Your task to perform on an android device: set an alarm Image 0: 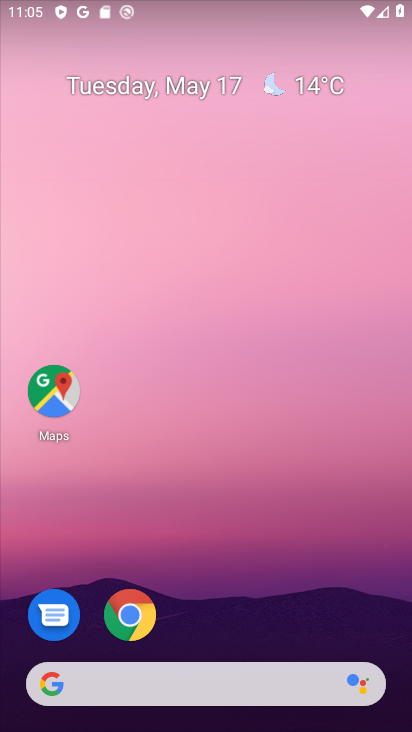
Step 0: drag from (283, 598) to (300, 158)
Your task to perform on an android device: set an alarm Image 1: 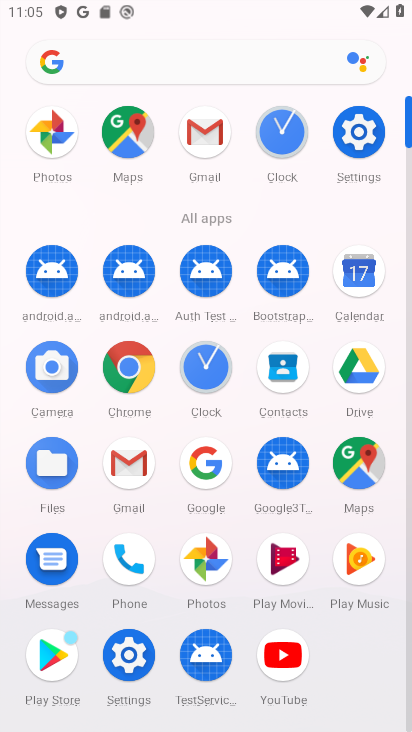
Step 1: click (207, 360)
Your task to perform on an android device: set an alarm Image 2: 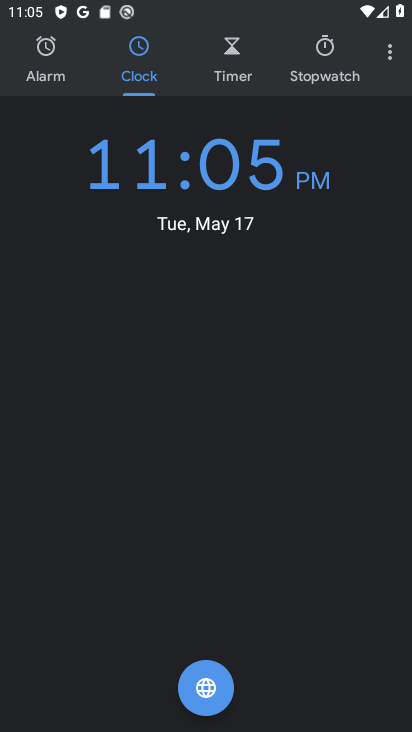
Step 2: click (71, 62)
Your task to perform on an android device: set an alarm Image 3: 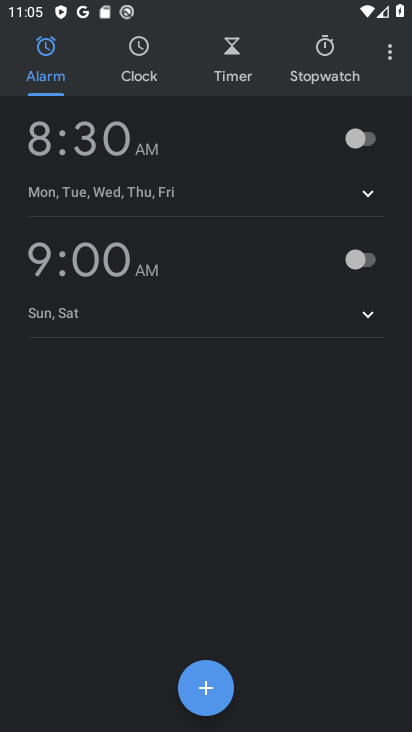
Step 3: click (225, 687)
Your task to perform on an android device: set an alarm Image 4: 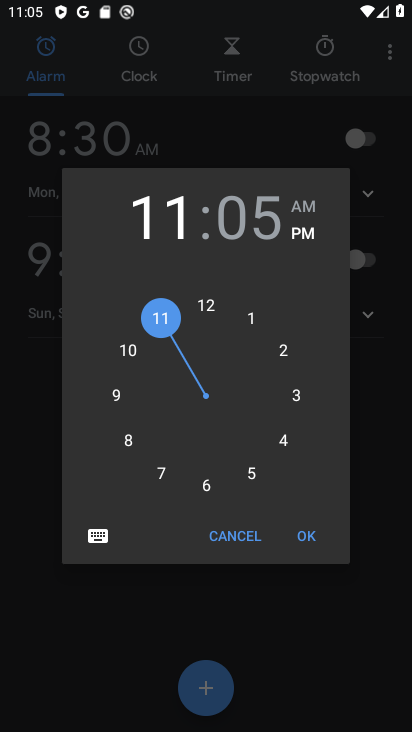
Step 4: click (300, 535)
Your task to perform on an android device: set an alarm Image 5: 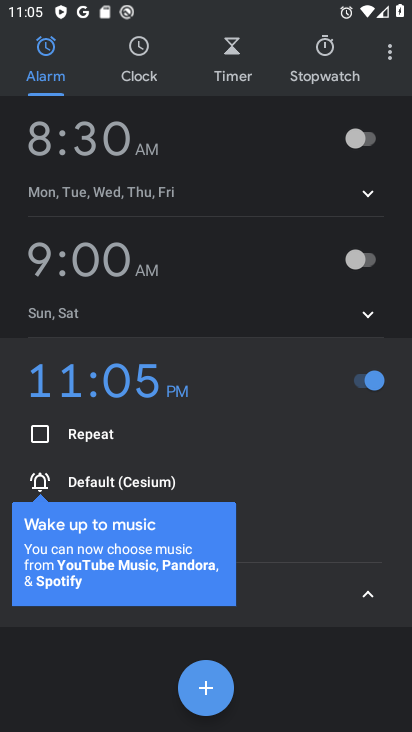
Step 5: task complete